Your task to perform on an android device: open the mobile data screen to see how much data has been used Image 0: 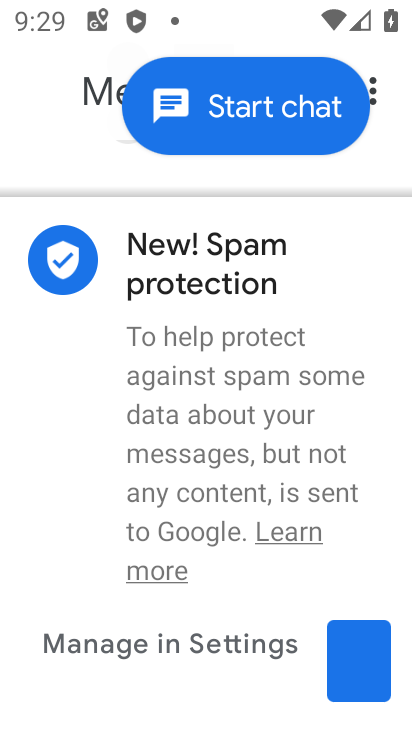
Step 0: press home button
Your task to perform on an android device: open the mobile data screen to see how much data has been used Image 1: 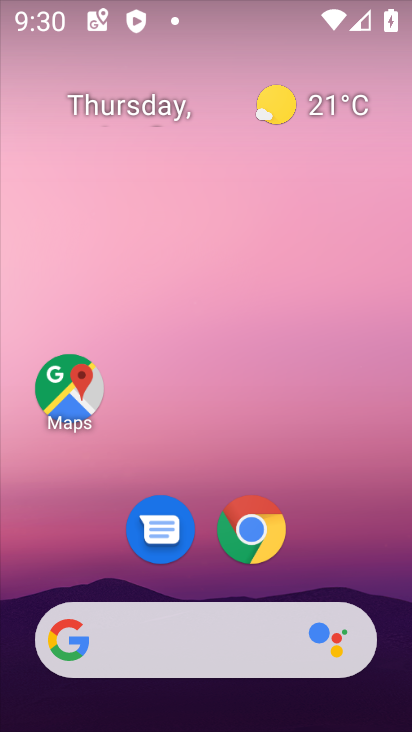
Step 1: drag from (187, 680) to (290, 6)
Your task to perform on an android device: open the mobile data screen to see how much data has been used Image 2: 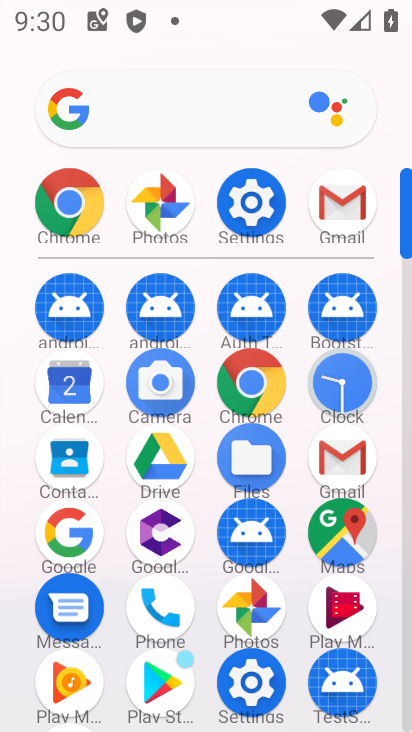
Step 2: click (251, 186)
Your task to perform on an android device: open the mobile data screen to see how much data has been used Image 3: 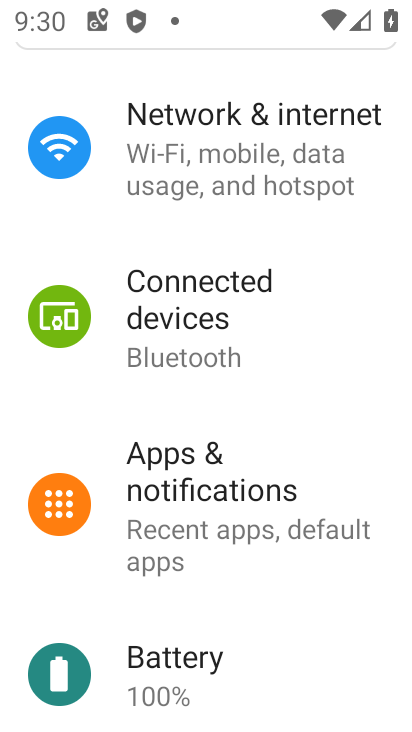
Step 3: click (288, 165)
Your task to perform on an android device: open the mobile data screen to see how much data has been used Image 4: 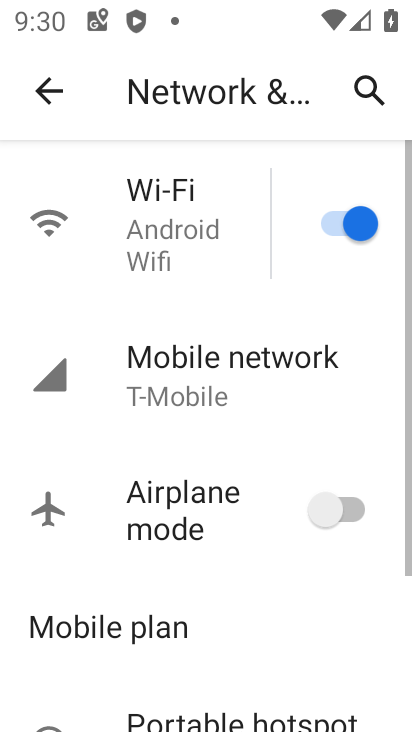
Step 4: click (237, 374)
Your task to perform on an android device: open the mobile data screen to see how much data has been used Image 5: 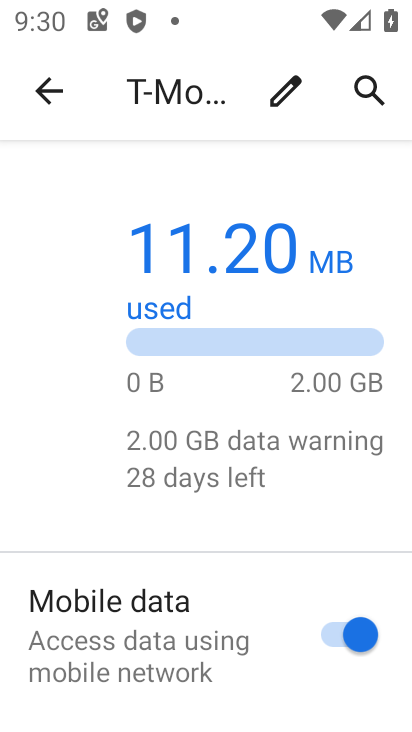
Step 5: task complete